Your task to perform on an android device: Open CNN.com Image 0: 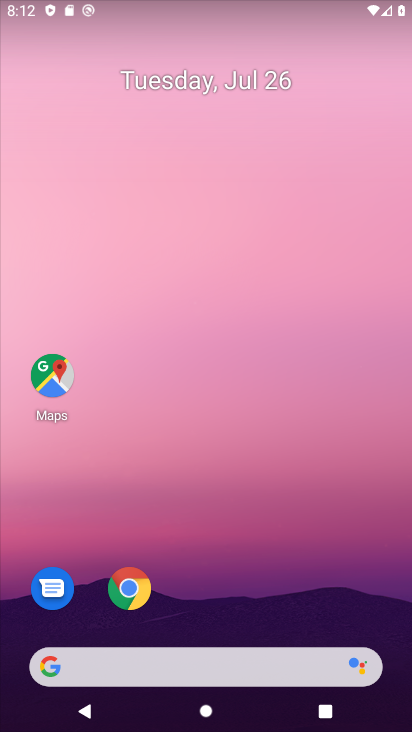
Step 0: click (146, 579)
Your task to perform on an android device: Open CNN.com Image 1: 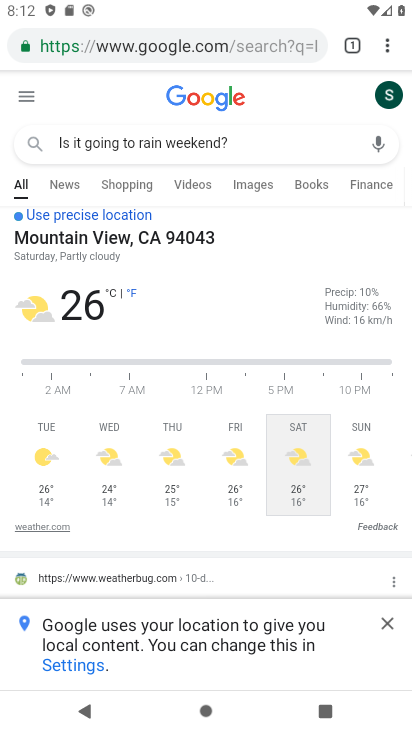
Step 1: click (233, 49)
Your task to perform on an android device: Open CNN.com Image 2: 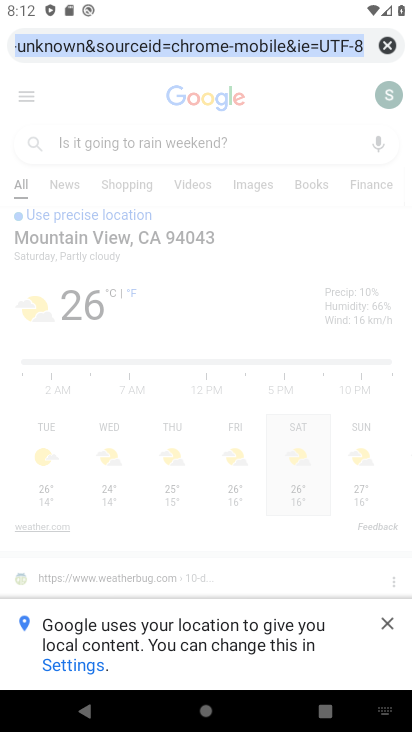
Step 2: type "CNN.com"
Your task to perform on an android device: Open CNN.com Image 3: 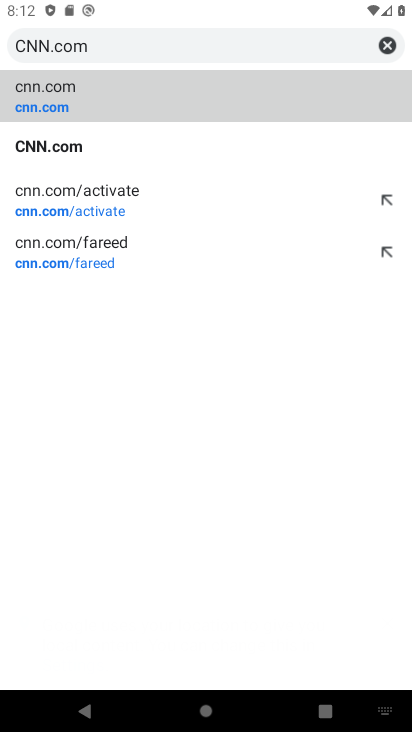
Step 3: click (88, 82)
Your task to perform on an android device: Open CNN.com Image 4: 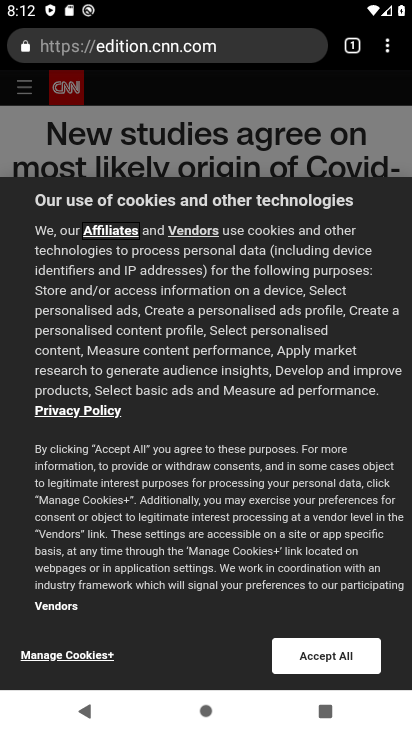
Step 4: task complete